Your task to perform on an android device: make emails show in primary in the gmail app Image 0: 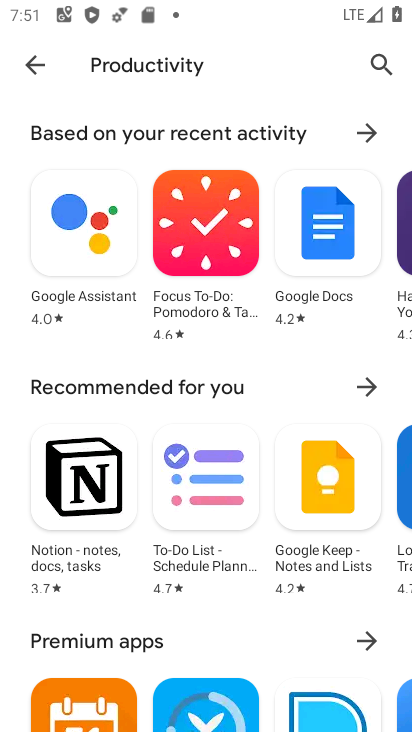
Step 0: press home button
Your task to perform on an android device: make emails show in primary in the gmail app Image 1: 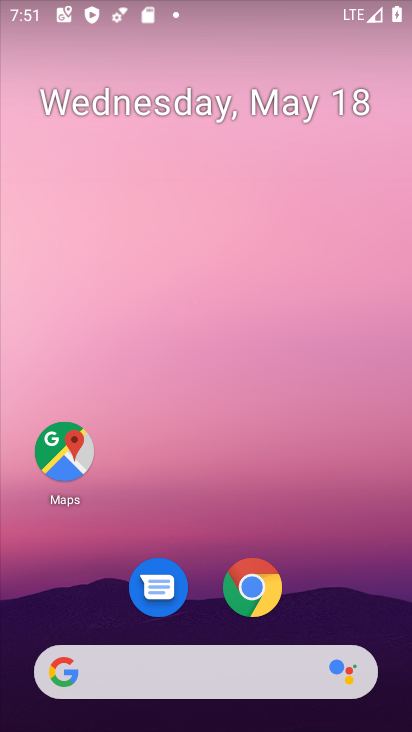
Step 1: drag from (225, 628) to (282, 182)
Your task to perform on an android device: make emails show in primary in the gmail app Image 2: 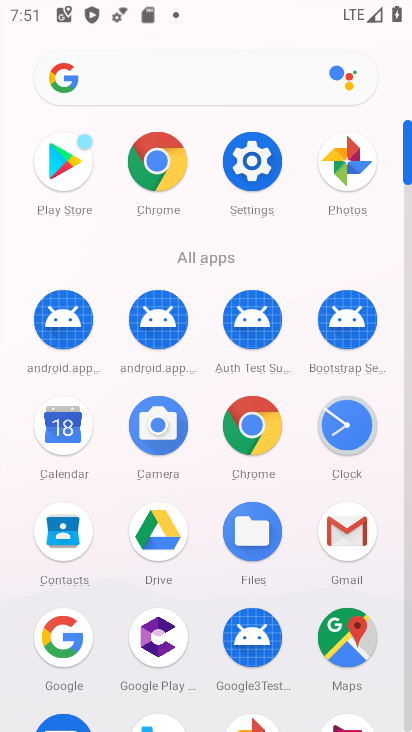
Step 2: click (340, 534)
Your task to perform on an android device: make emails show in primary in the gmail app Image 3: 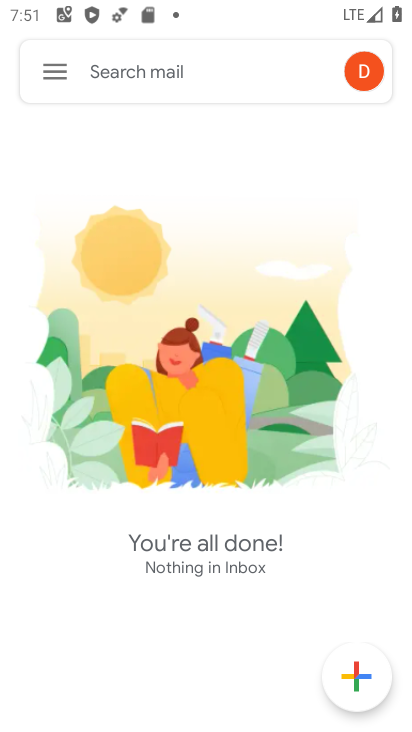
Step 3: click (64, 67)
Your task to perform on an android device: make emails show in primary in the gmail app Image 4: 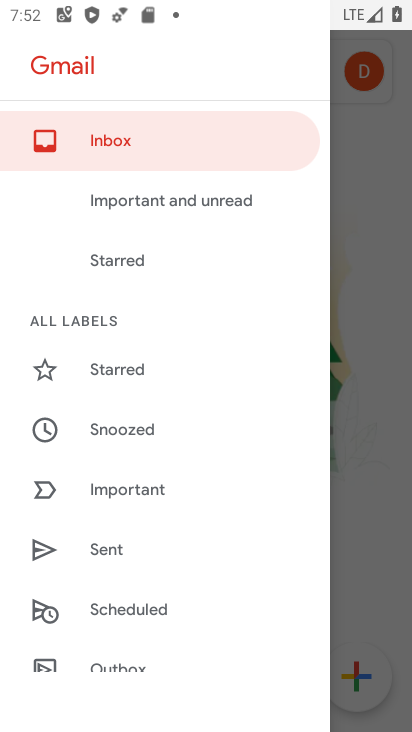
Step 4: task complete